Your task to perform on an android device: See recent photos Image 0: 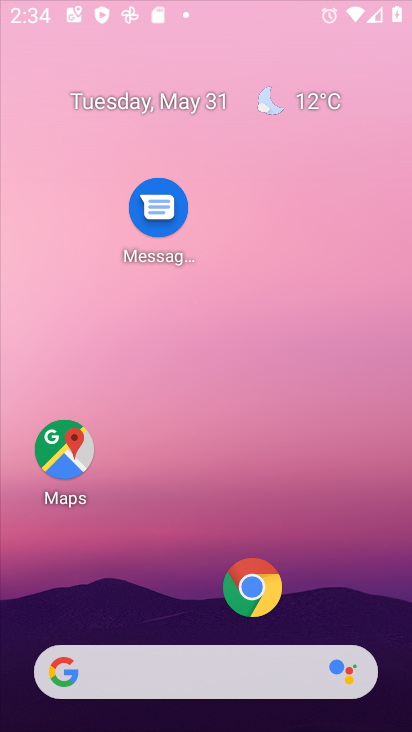
Step 0: drag from (297, 11) to (286, 148)
Your task to perform on an android device: See recent photos Image 1: 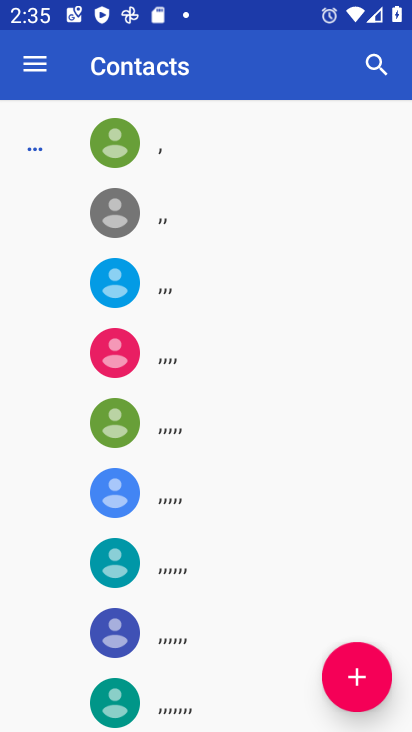
Step 1: drag from (214, 639) to (386, 303)
Your task to perform on an android device: See recent photos Image 2: 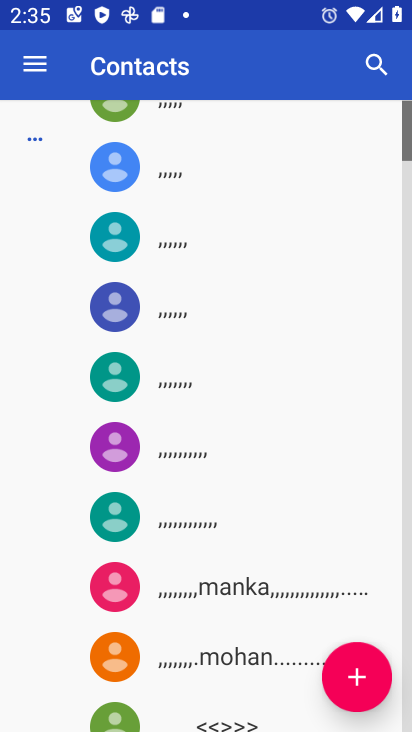
Step 2: press home button
Your task to perform on an android device: See recent photos Image 3: 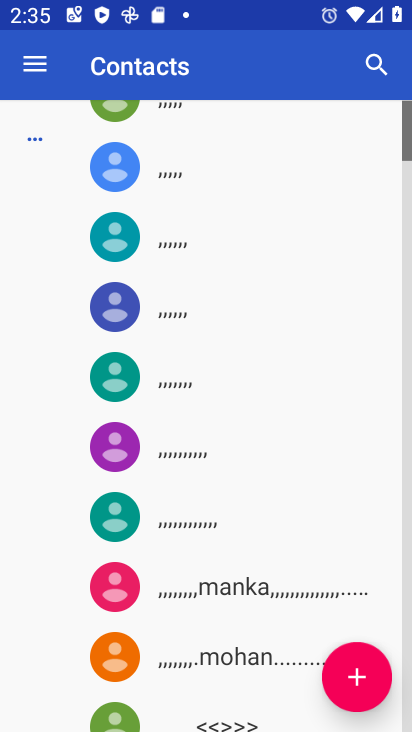
Step 3: drag from (394, 506) to (382, 236)
Your task to perform on an android device: See recent photos Image 4: 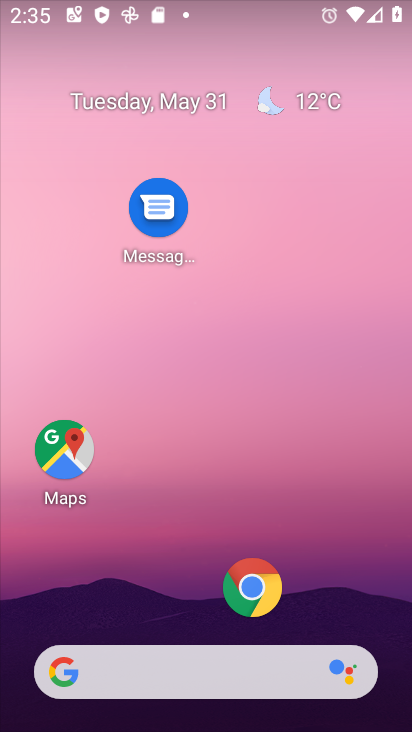
Step 4: drag from (189, 598) to (289, 120)
Your task to perform on an android device: See recent photos Image 5: 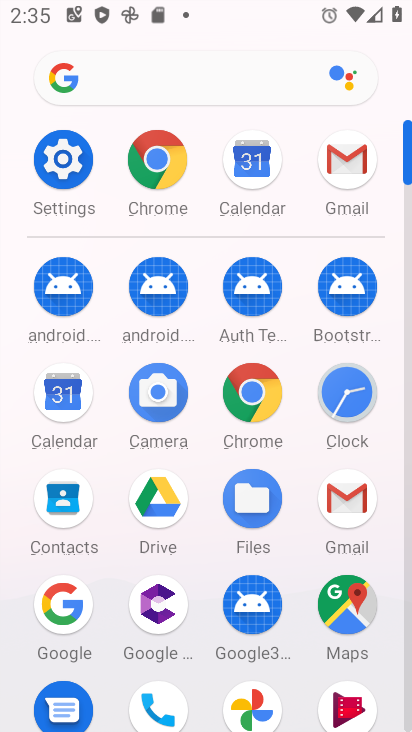
Step 5: click (235, 703)
Your task to perform on an android device: See recent photos Image 6: 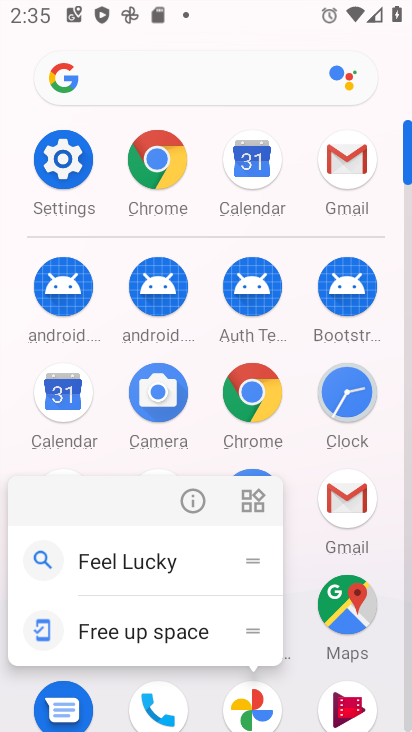
Step 6: click (207, 484)
Your task to perform on an android device: See recent photos Image 7: 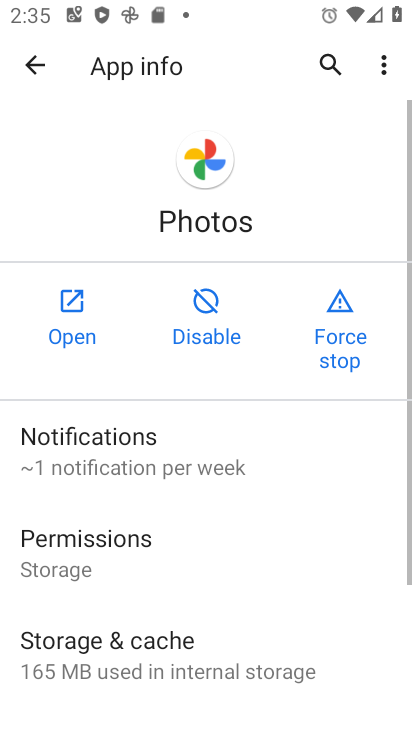
Step 7: click (70, 320)
Your task to perform on an android device: See recent photos Image 8: 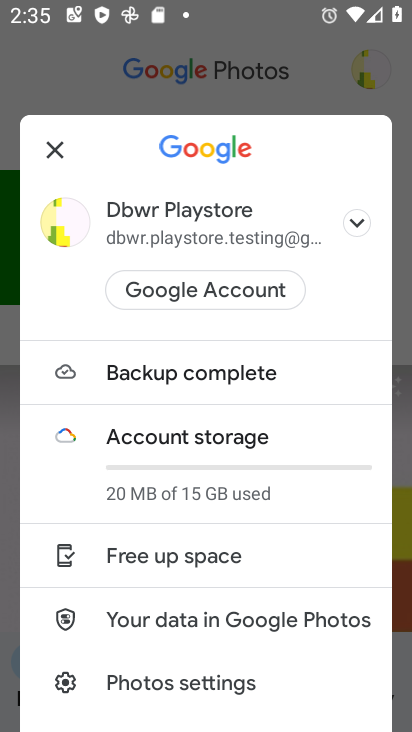
Step 8: click (64, 160)
Your task to perform on an android device: See recent photos Image 9: 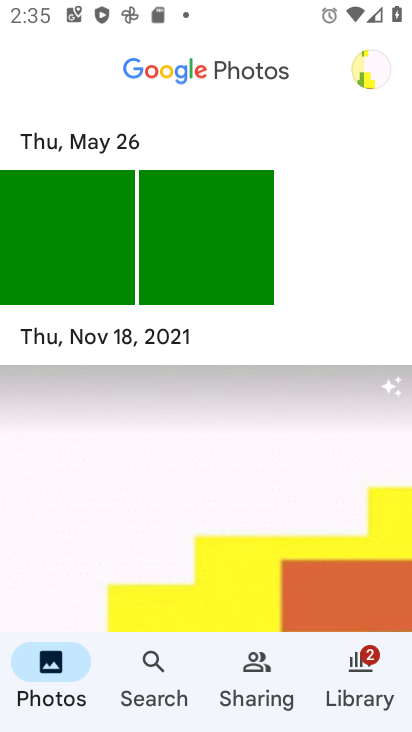
Step 9: task complete